Your task to perform on an android device: Open maps Image 0: 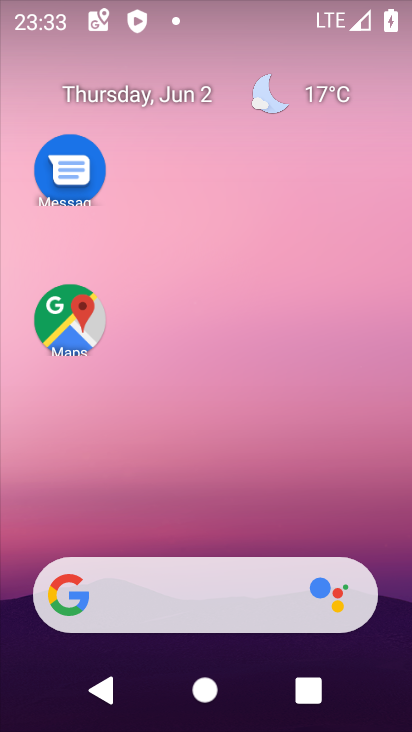
Step 0: press home button
Your task to perform on an android device: Open maps Image 1: 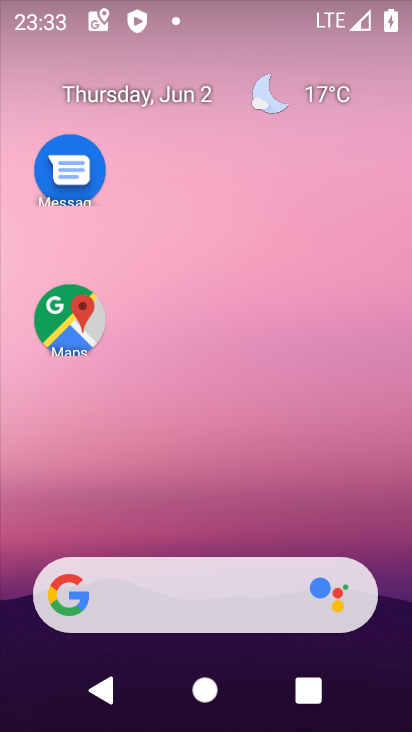
Step 1: drag from (272, 494) to (231, 0)
Your task to perform on an android device: Open maps Image 2: 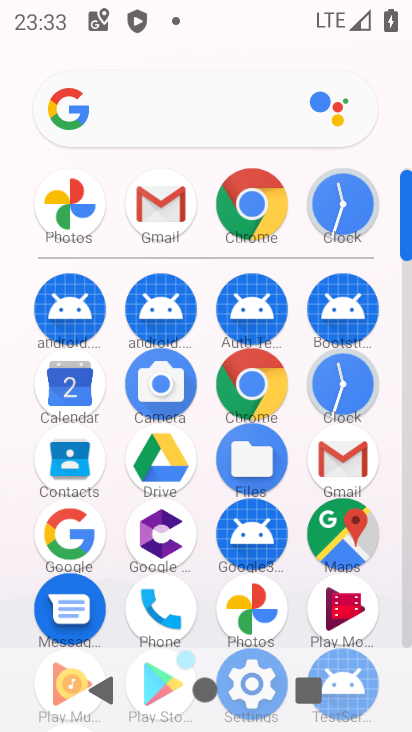
Step 2: click (332, 516)
Your task to perform on an android device: Open maps Image 3: 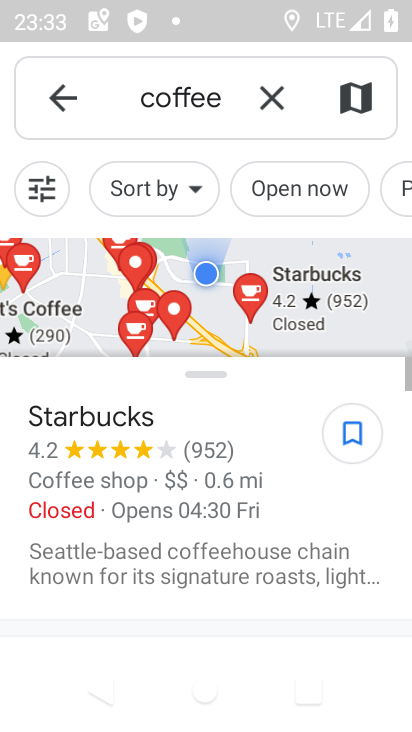
Step 3: task complete